Your task to perform on an android device: Play the last video I watched on Youtube Image 0: 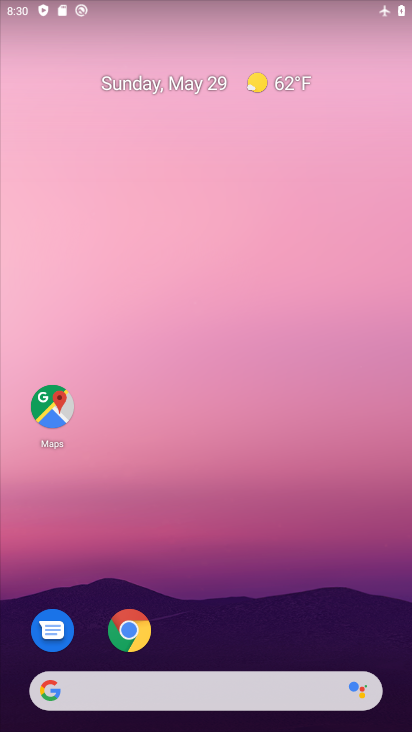
Step 0: drag from (392, 712) to (338, 110)
Your task to perform on an android device: Play the last video I watched on Youtube Image 1: 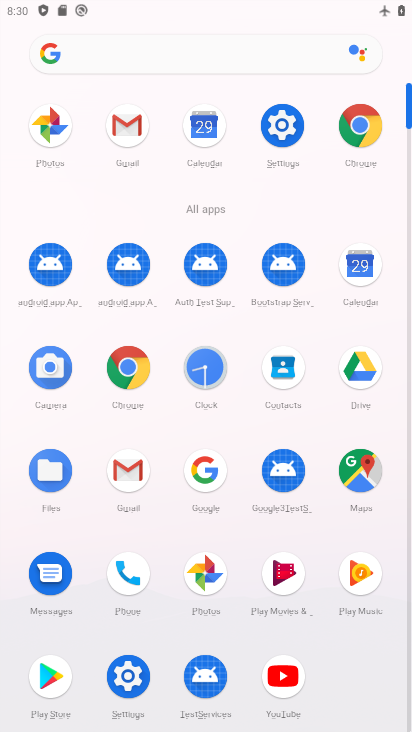
Step 1: click (306, 668)
Your task to perform on an android device: Play the last video I watched on Youtube Image 2: 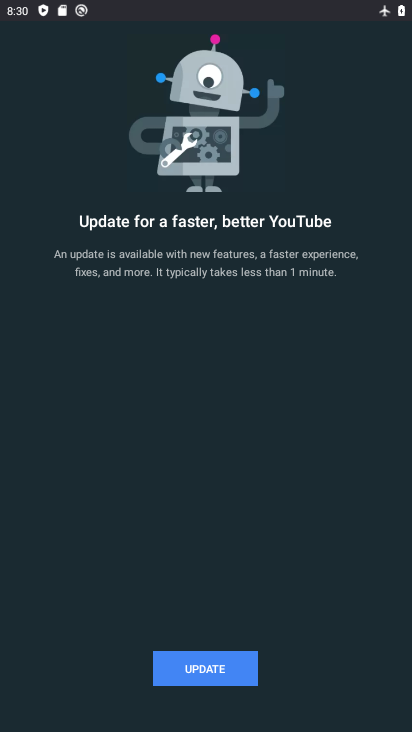
Step 2: task complete